Your task to perform on an android device: Do I have any events today? Image 0: 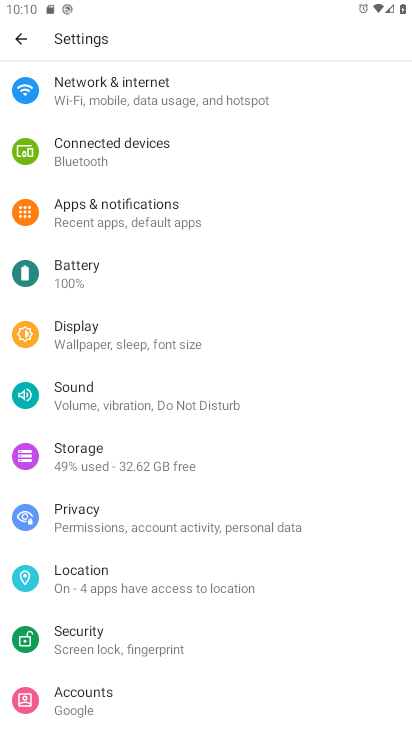
Step 0: press home button
Your task to perform on an android device: Do I have any events today? Image 1: 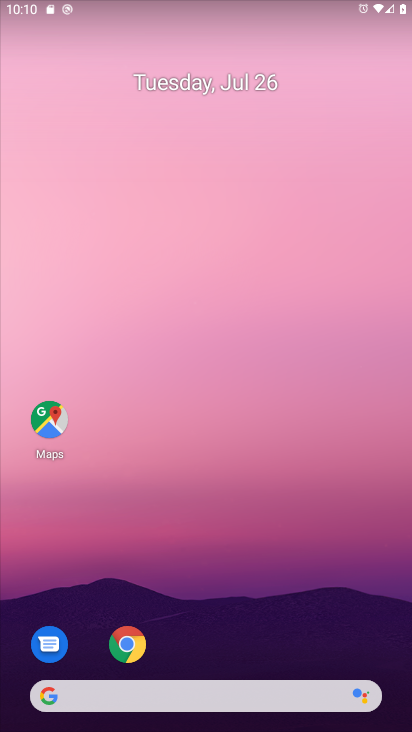
Step 1: drag from (210, 456) to (244, 157)
Your task to perform on an android device: Do I have any events today? Image 2: 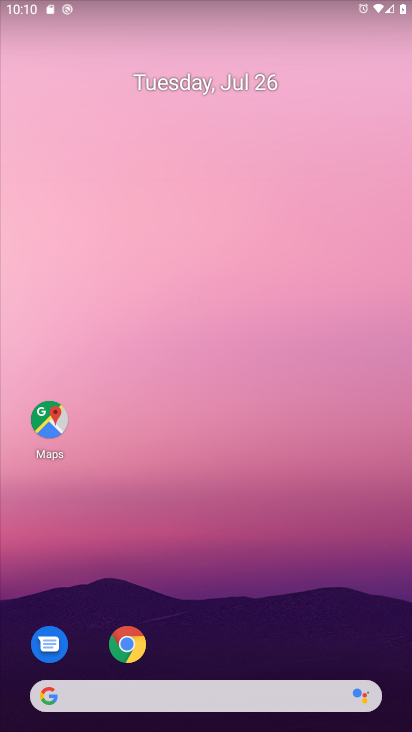
Step 2: drag from (208, 605) to (155, 9)
Your task to perform on an android device: Do I have any events today? Image 3: 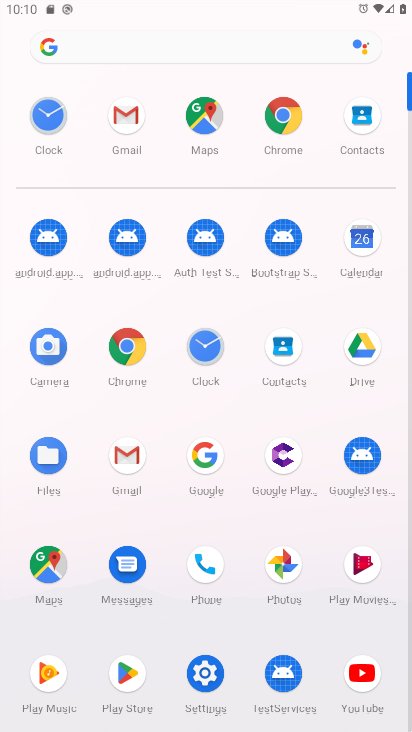
Step 3: click (366, 257)
Your task to perform on an android device: Do I have any events today? Image 4: 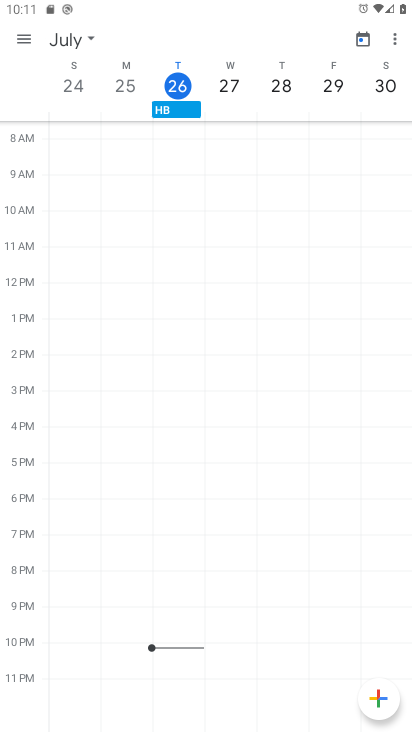
Step 4: click (28, 35)
Your task to perform on an android device: Do I have any events today? Image 5: 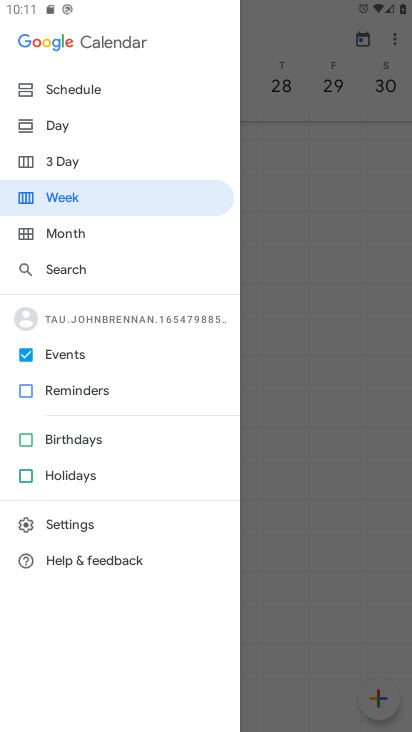
Step 5: click (56, 134)
Your task to perform on an android device: Do I have any events today? Image 6: 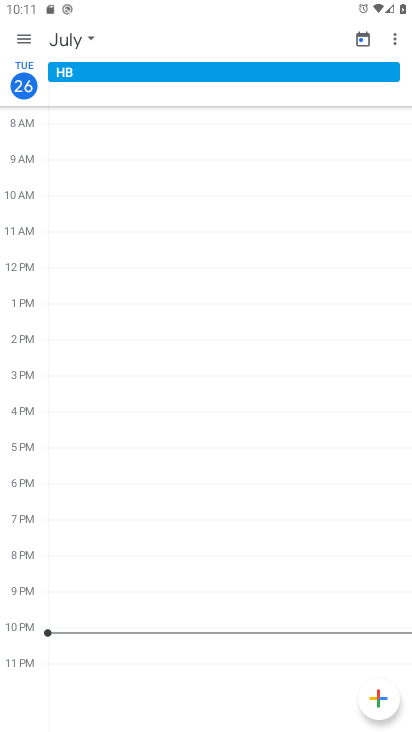
Step 6: task complete